Your task to perform on an android device: Go to Yahoo.com Image 0: 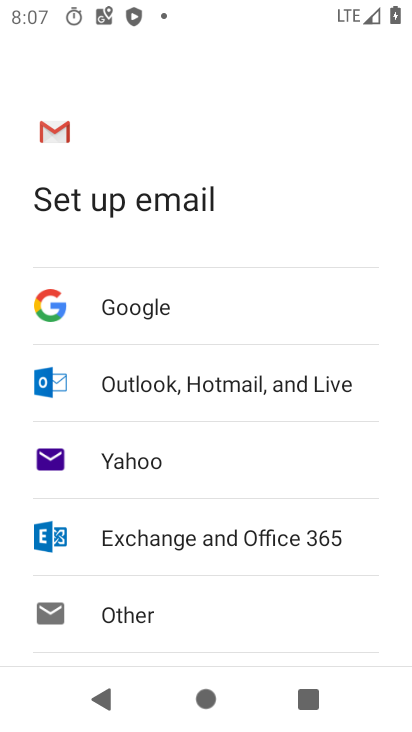
Step 0: press home button
Your task to perform on an android device: Go to Yahoo.com Image 1: 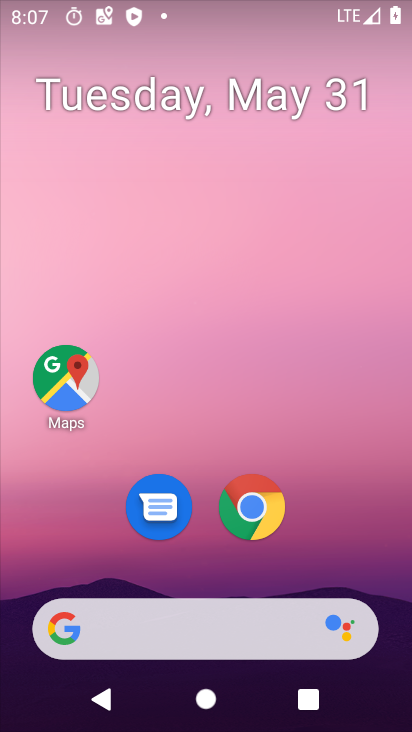
Step 1: drag from (37, 581) to (276, 133)
Your task to perform on an android device: Go to Yahoo.com Image 2: 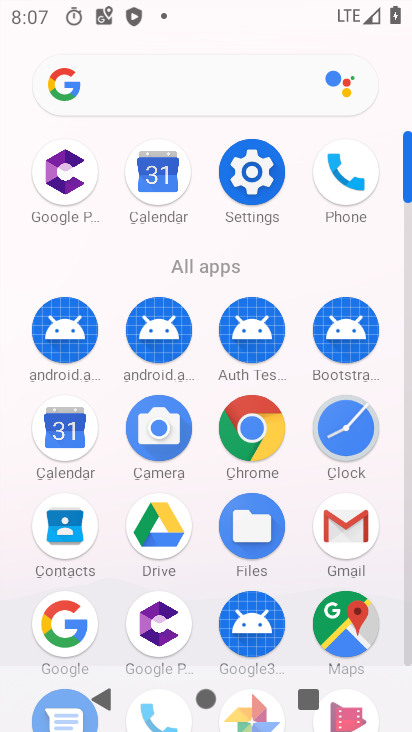
Step 2: click (240, 163)
Your task to perform on an android device: Go to Yahoo.com Image 3: 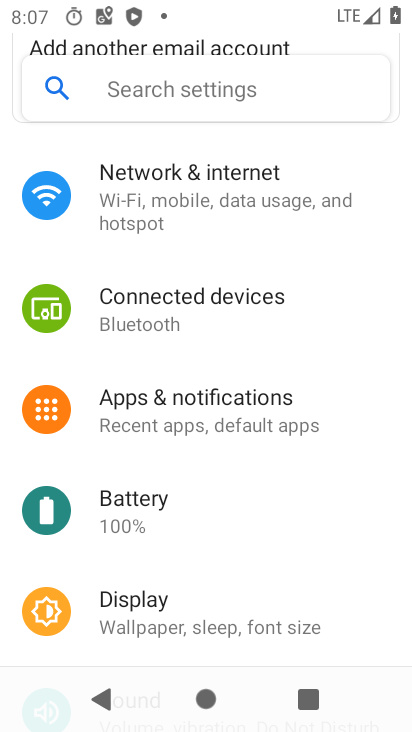
Step 3: drag from (34, 554) to (243, 125)
Your task to perform on an android device: Go to Yahoo.com Image 4: 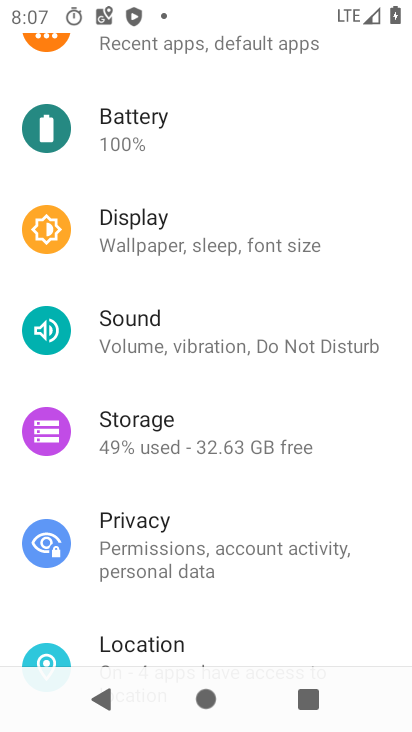
Step 4: click (42, 337)
Your task to perform on an android device: Go to Yahoo.com Image 5: 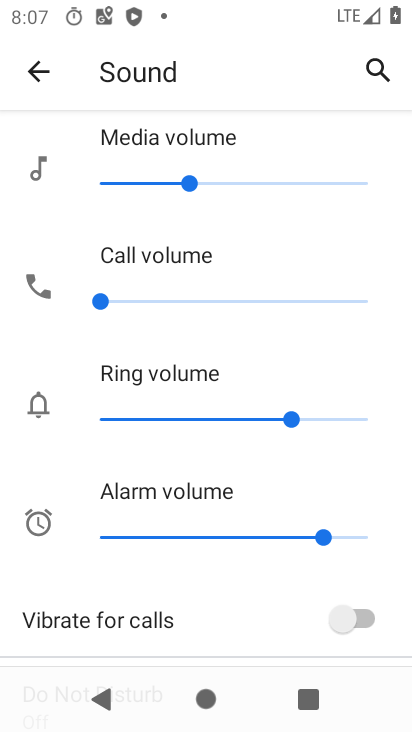
Step 5: task complete